Your task to perform on an android device: Go to eBay Image 0: 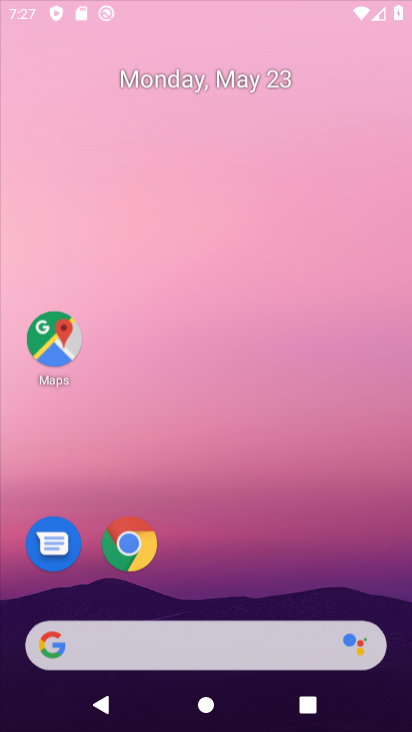
Step 0: drag from (383, 563) to (383, 232)
Your task to perform on an android device: Go to eBay Image 1: 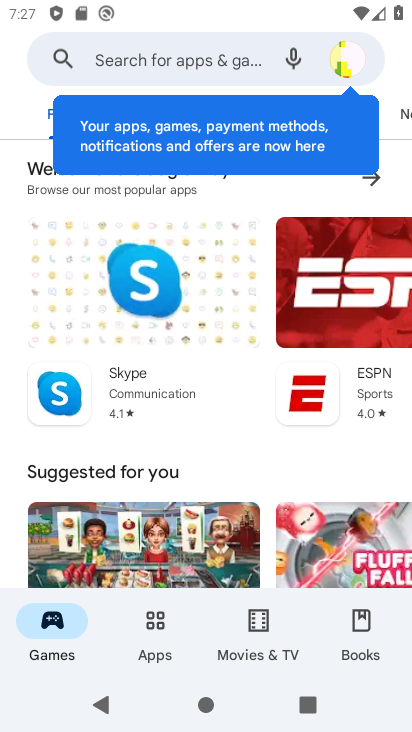
Step 1: press home button
Your task to perform on an android device: Go to eBay Image 2: 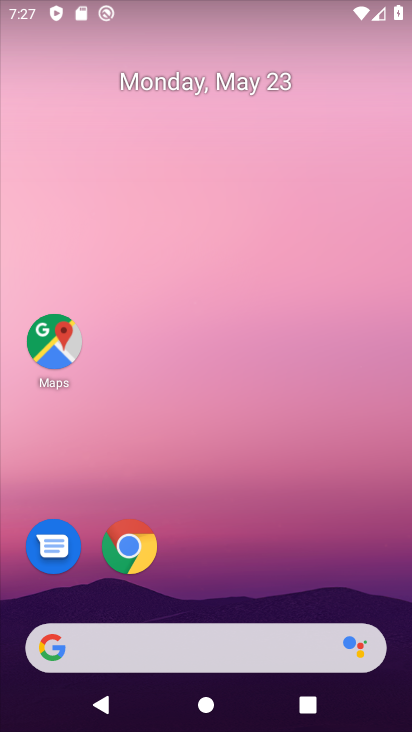
Step 2: drag from (379, 591) to (363, 242)
Your task to perform on an android device: Go to eBay Image 3: 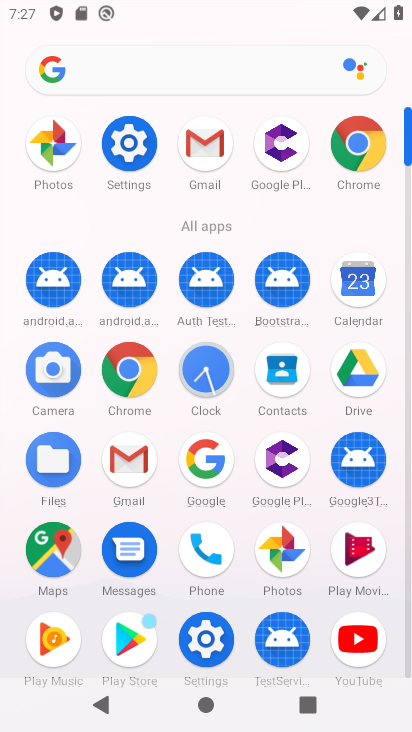
Step 3: click (143, 380)
Your task to perform on an android device: Go to eBay Image 4: 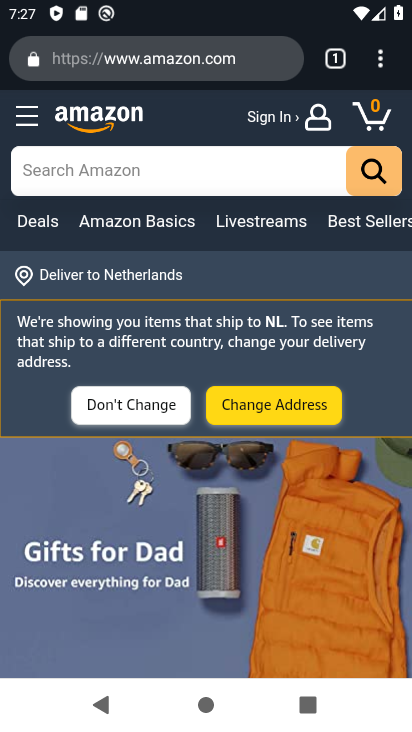
Step 4: press back button
Your task to perform on an android device: Go to eBay Image 5: 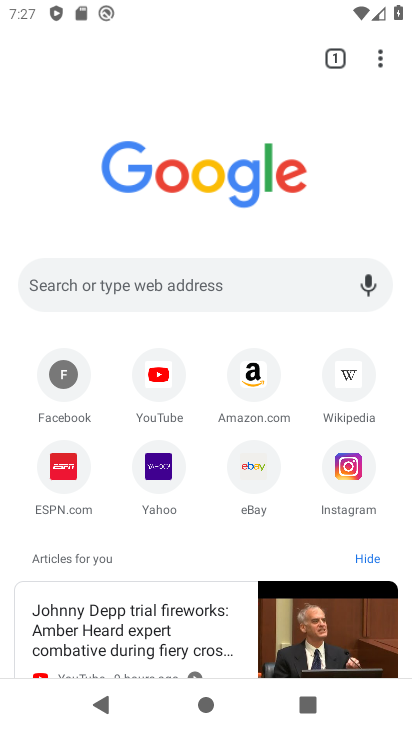
Step 5: click (262, 478)
Your task to perform on an android device: Go to eBay Image 6: 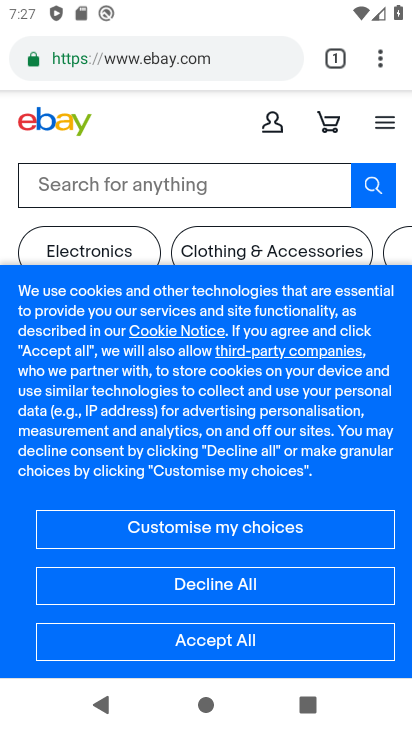
Step 6: task complete